Your task to perform on an android device: open device folders in google photos Image 0: 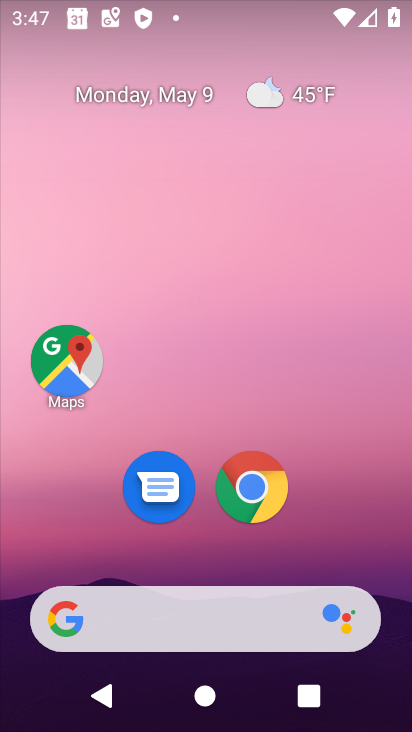
Step 0: drag from (222, 581) to (192, 240)
Your task to perform on an android device: open device folders in google photos Image 1: 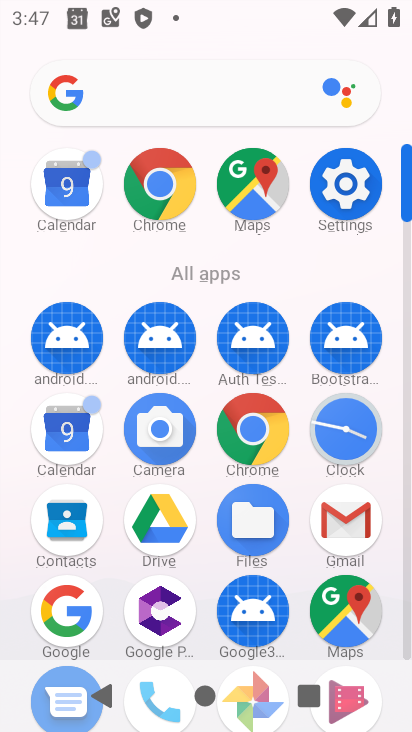
Step 1: drag from (196, 646) to (211, 230)
Your task to perform on an android device: open device folders in google photos Image 2: 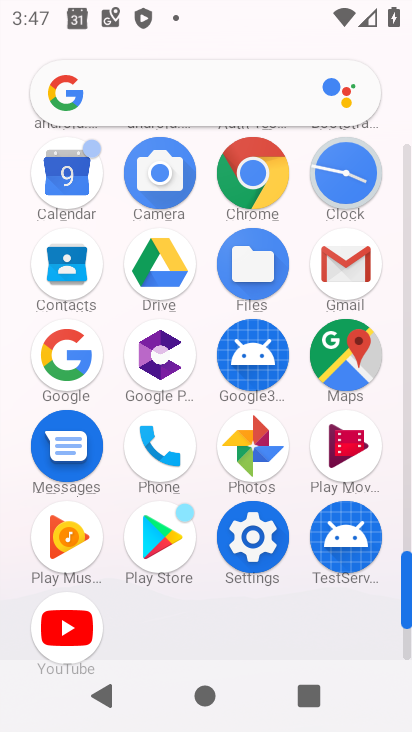
Step 2: click (244, 450)
Your task to perform on an android device: open device folders in google photos Image 3: 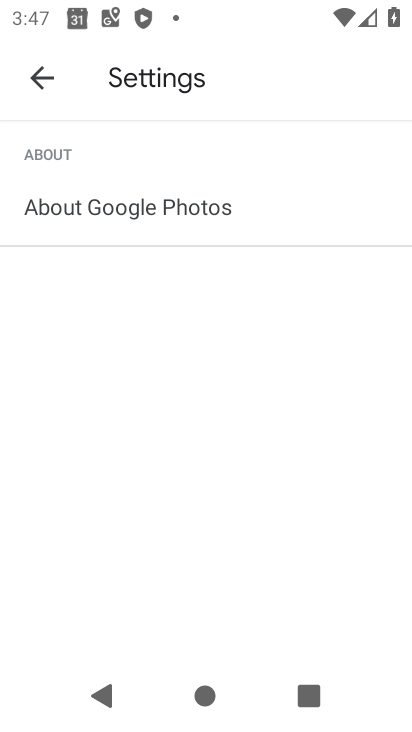
Step 3: click (38, 79)
Your task to perform on an android device: open device folders in google photos Image 4: 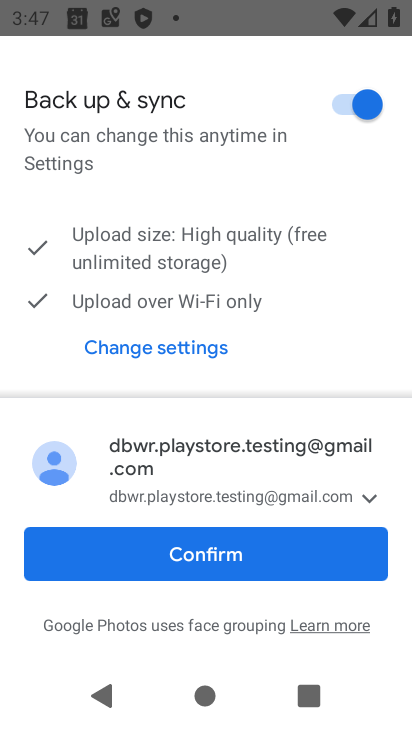
Step 4: click (40, 78)
Your task to perform on an android device: open device folders in google photos Image 5: 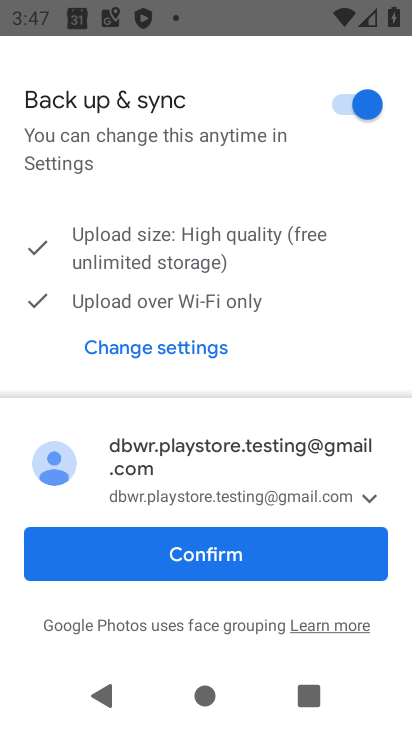
Step 5: click (209, 554)
Your task to perform on an android device: open device folders in google photos Image 6: 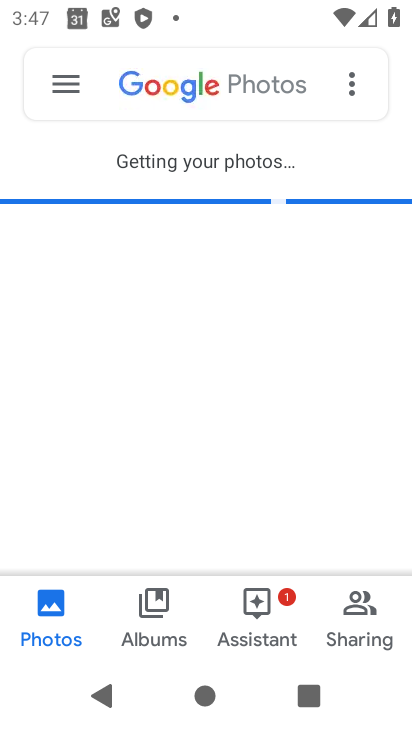
Step 6: click (66, 82)
Your task to perform on an android device: open device folders in google photos Image 7: 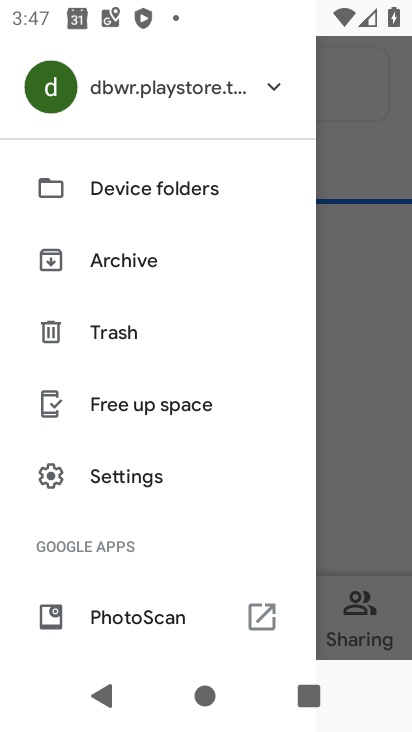
Step 7: click (104, 193)
Your task to perform on an android device: open device folders in google photos Image 8: 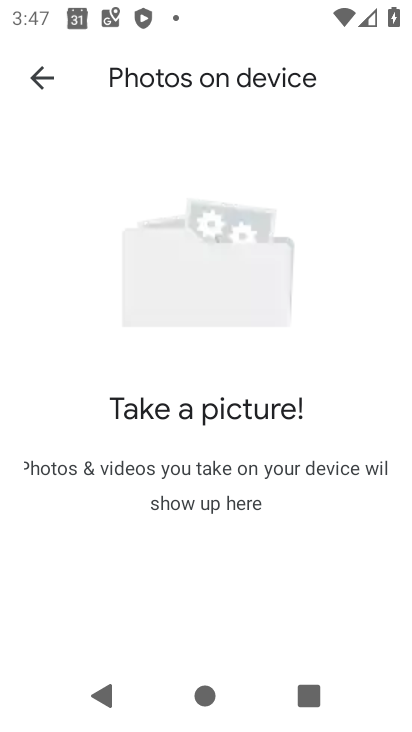
Step 8: task complete